Your task to perform on an android device: Clear the cart on walmart.com. Image 0: 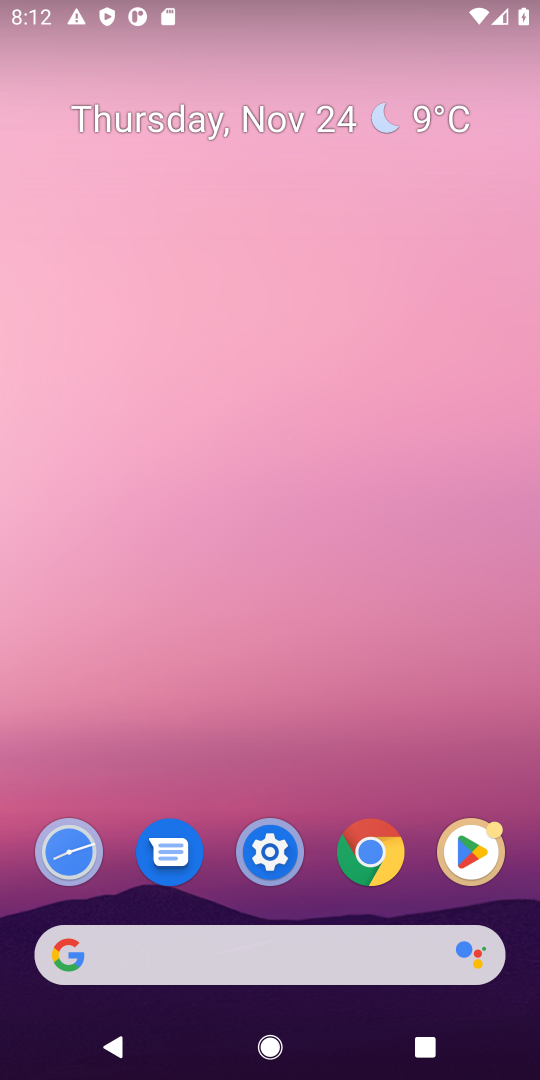
Step 0: click (258, 956)
Your task to perform on an android device: Clear the cart on walmart.com. Image 1: 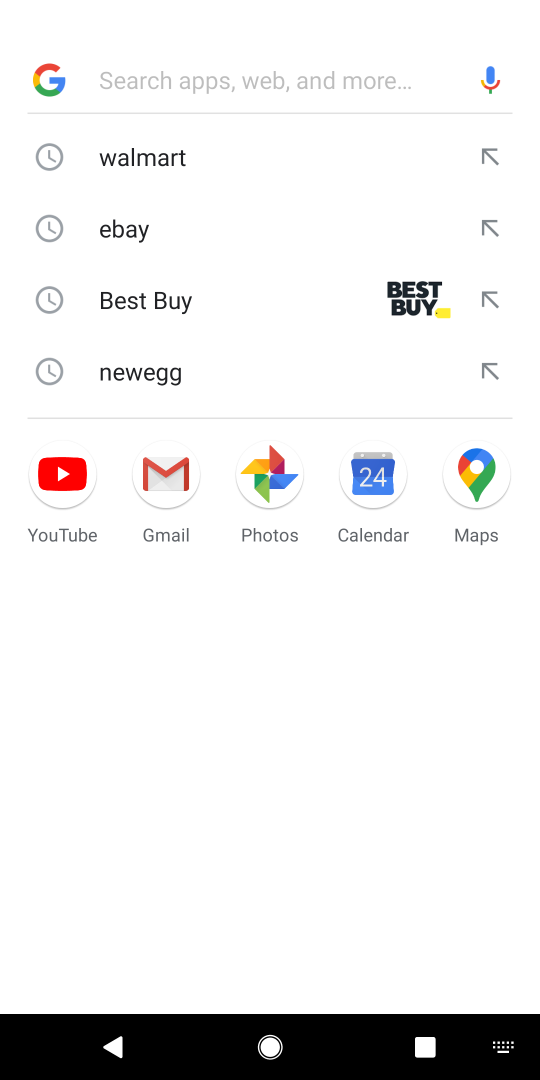
Step 1: click (149, 151)
Your task to perform on an android device: Clear the cart on walmart.com. Image 2: 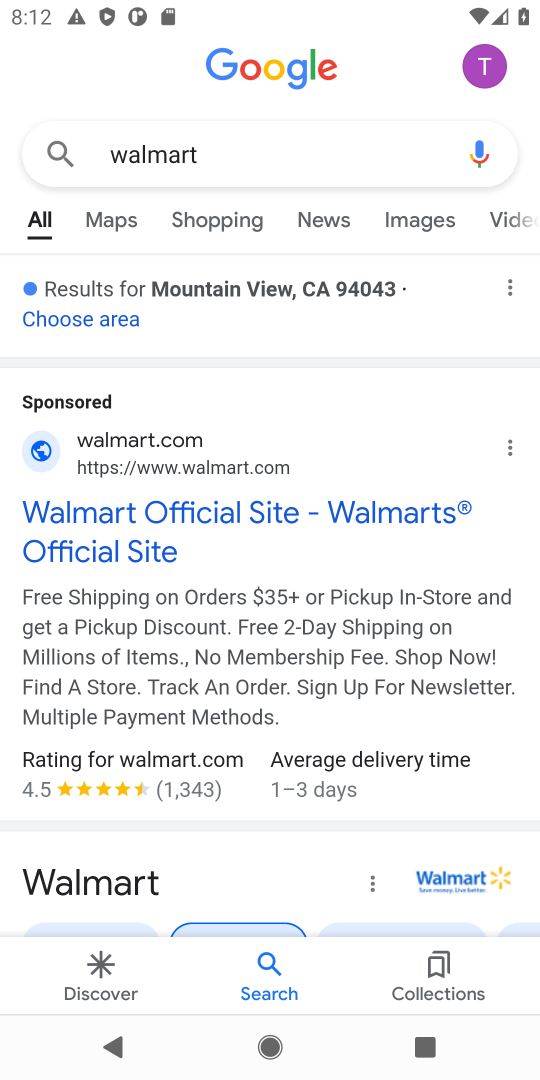
Step 2: click (121, 512)
Your task to perform on an android device: Clear the cart on walmart.com. Image 3: 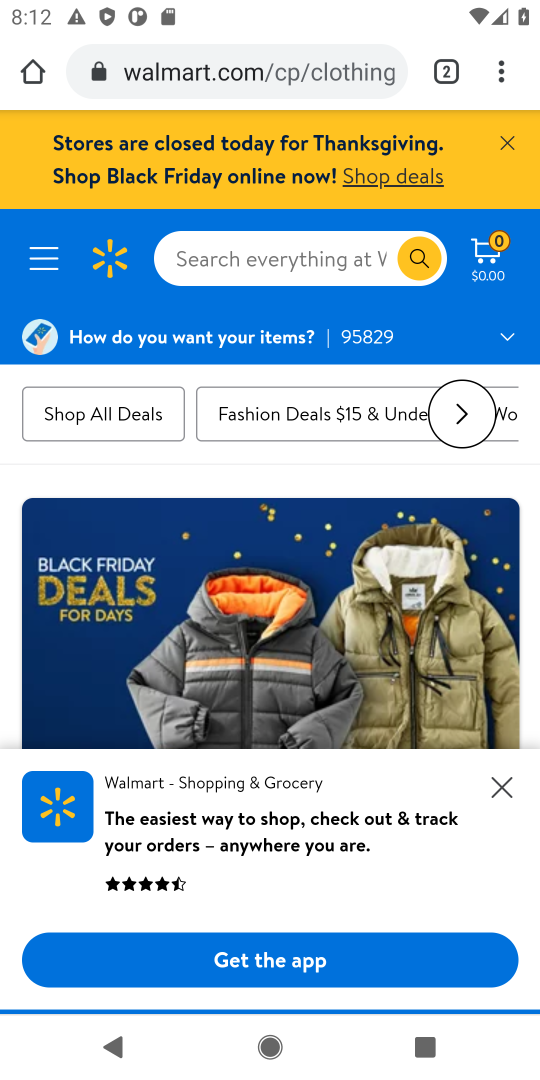
Step 3: click (492, 259)
Your task to perform on an android device: Clear the cart on walmart.com. Image 4: 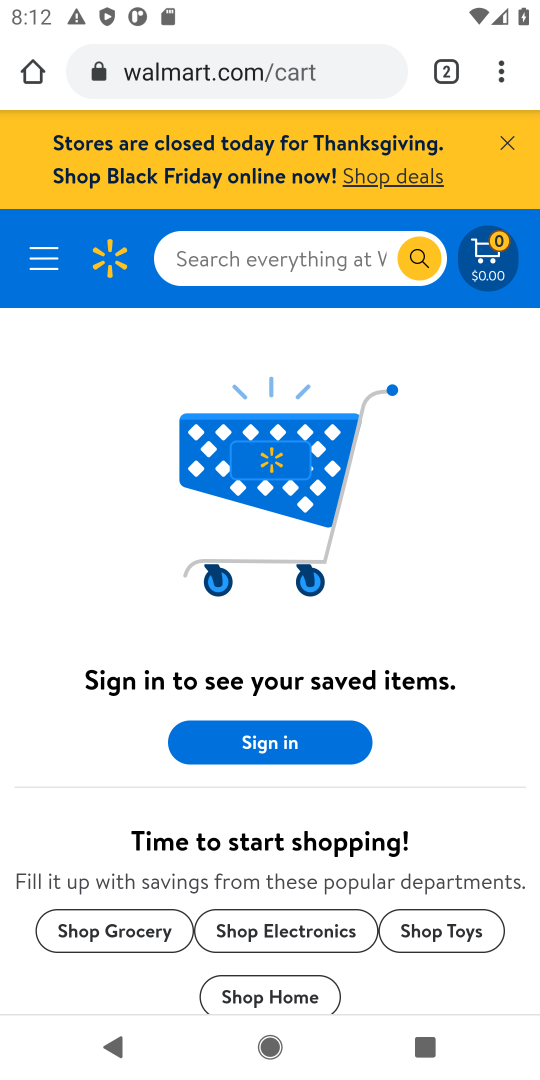
Step 4: task complete